Your task to perform on an android device: Open wifi settings Image 0: 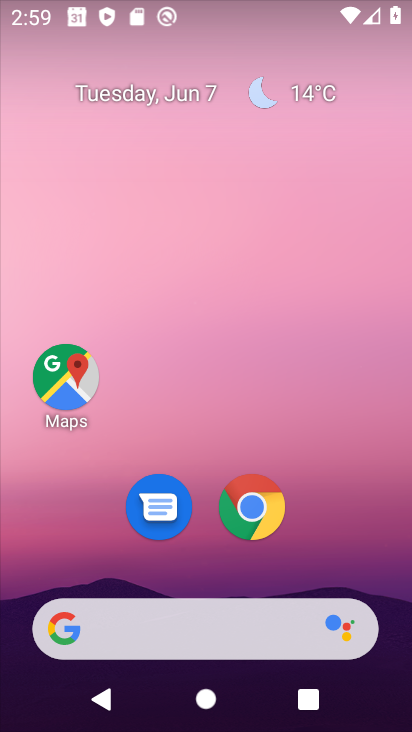
Step 0: drag from (327, 532) to (301, 143)
Your task to perform on an android device: Open wifi settings Image 1: 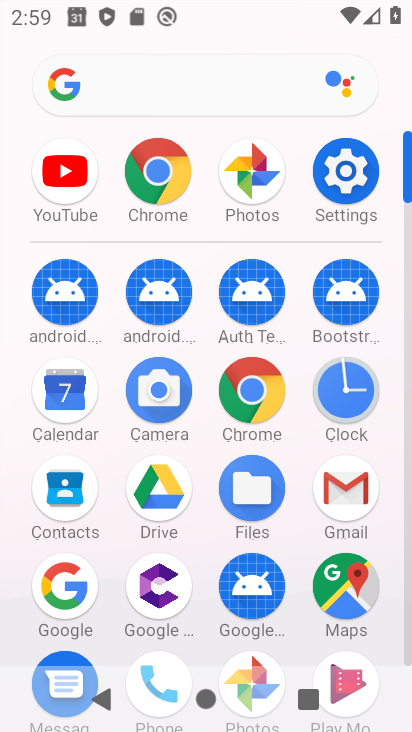
Step 1: click (366, 170)
Your task to perform on an android device: Open wifi settings Image 2: 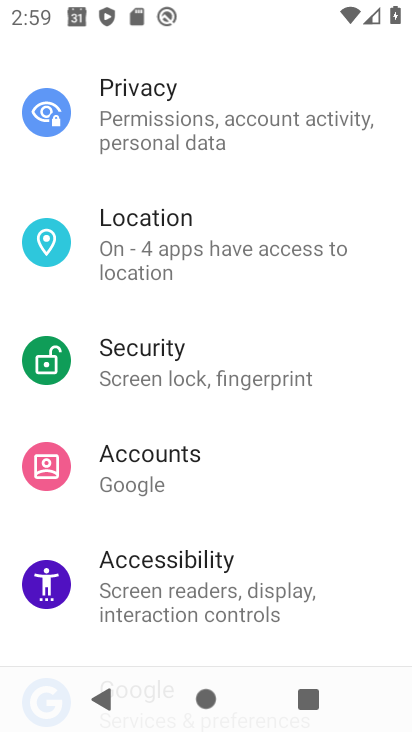
Step 2: drag from (276, 232) to (254, 640)
Your task to perform on an android device: Open wifi settings Image 3: 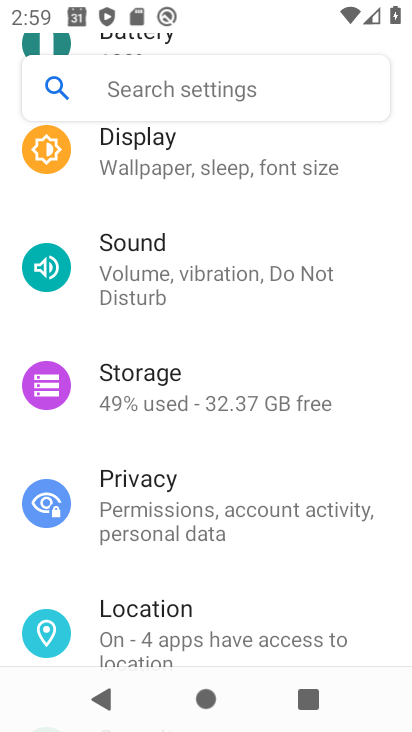
Step 3: drag from (252, 225) to (284, 546)
Your task to perform on an android device: Open wifi settings Image 4: 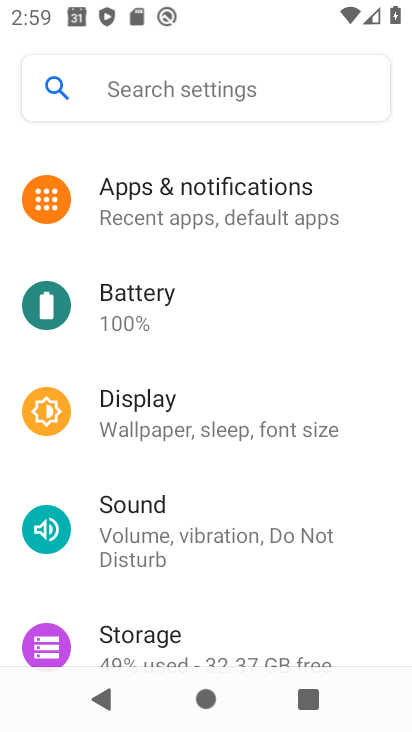
Step 4: drag from (222, 259) to (275, 626)
Your task to perform on an android device: Open wifi settings Image 5: 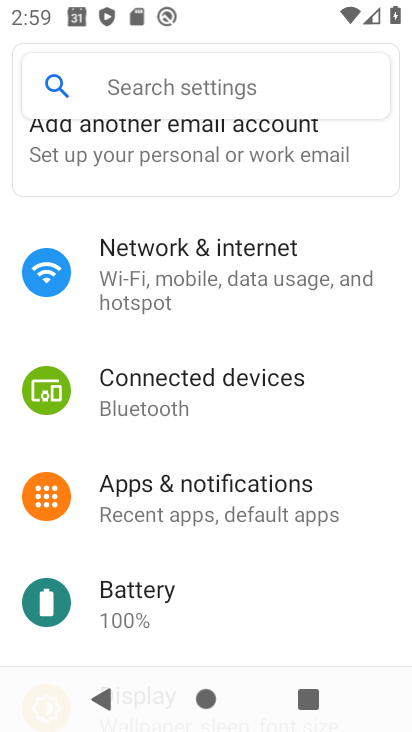
Step 5: click (215, 288)
Your task to perform on an android device: Open wifi settings Image 6: 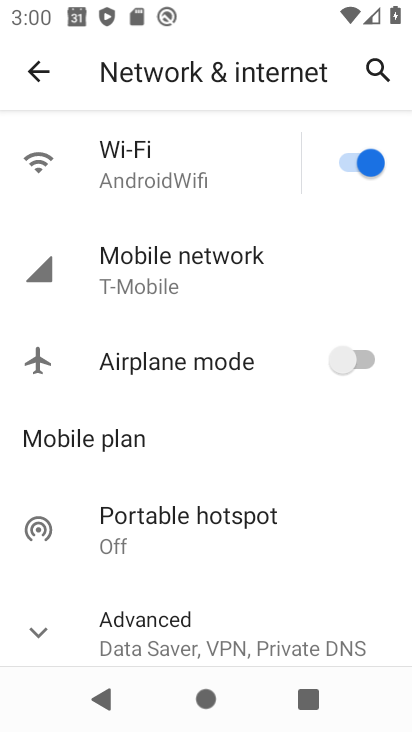
Step 6: click (171, 163)
Your task to perform on an android device: Open wifi settings Image 7: 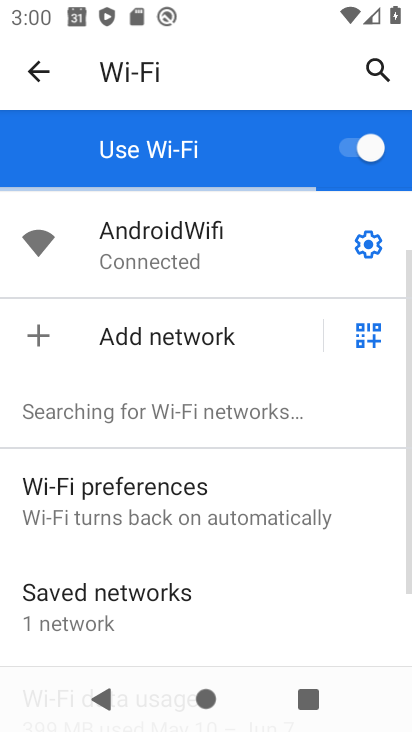
Step 7: click (379, 240)
Your task to perform on an android device: Open wifi settings Image 8: 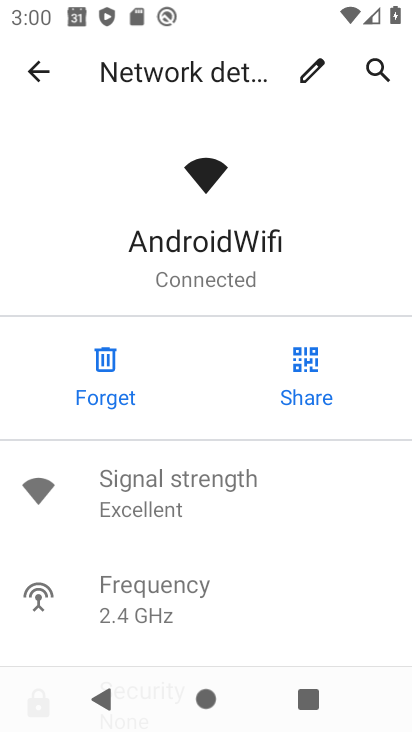
Step 8: task complete